Your task to perform on an android device: Open Chrome and go to the settings page Image 0: 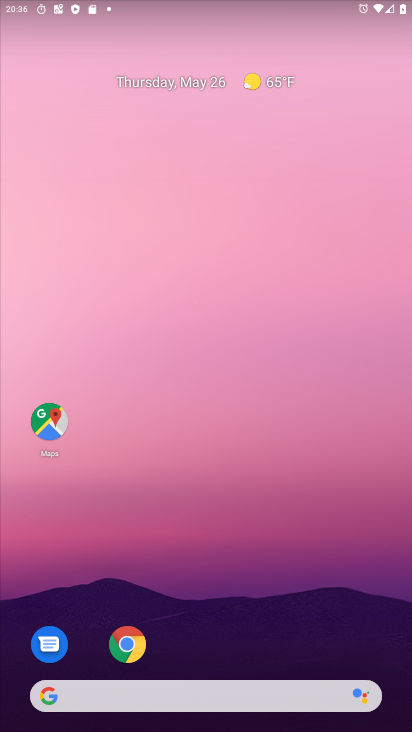
Step 0: drag from (212, 624) to (223, 33)
Your task to perform on an android device: Open Chrome and go to the settings page Image 1: 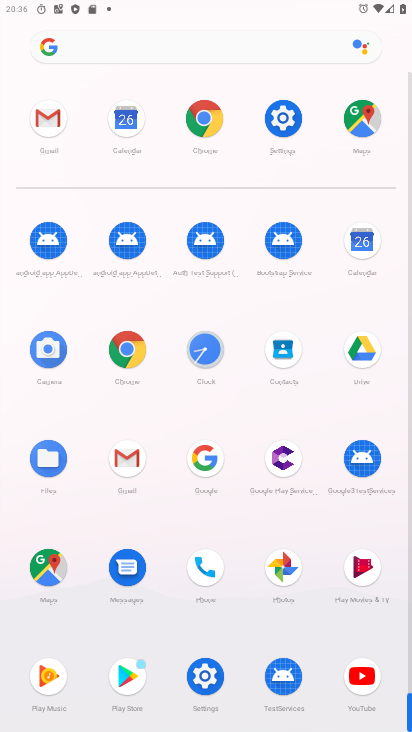
Step 1: click (120, 341)
Your task to perform on an android device: Open Chrome and go to the settings page Image 2: 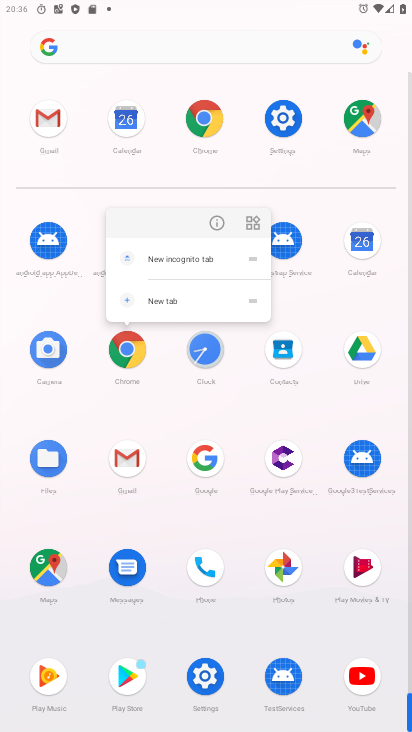
Step 2: click (220, 223)
Your task to perform on an android device: Open Chrome and go to the settings page Image 3: 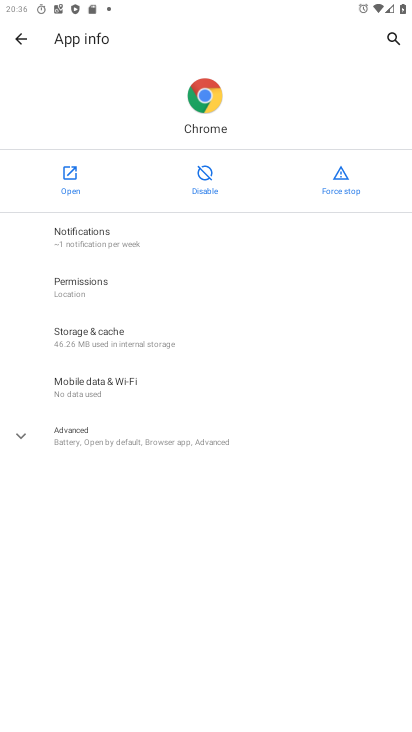
Step 3: click (68, 191)
Your task to perform on an android device: Open Chrome and go to the settings page Image 4: 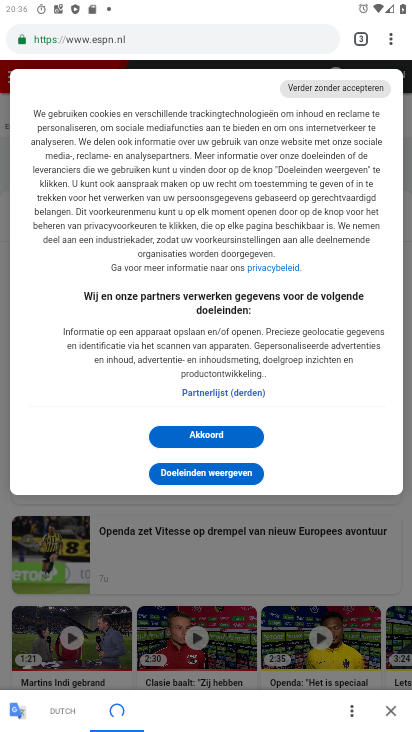
Step 4: task complete